Your task to perform on an android device: Check the news Image 0: 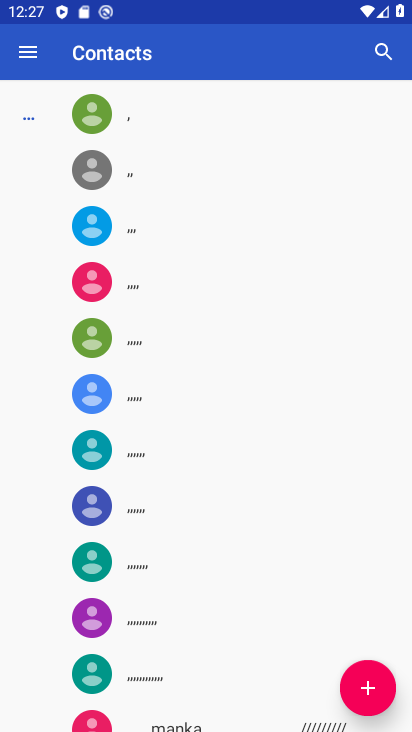
Step 0: press home button
Your task to perform on an android device: Check the news Image 1: 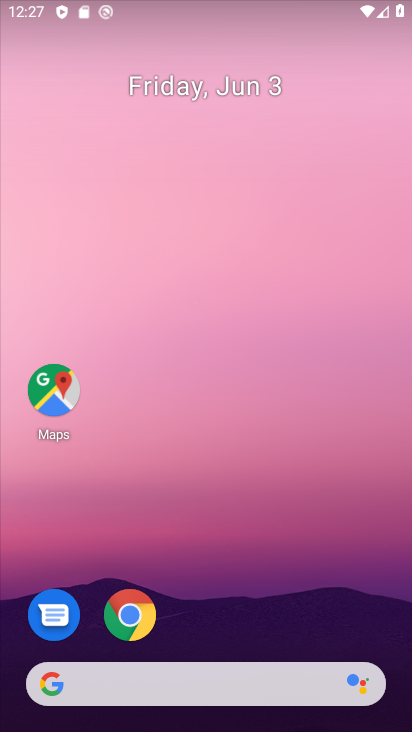
Step 1: click (202, 679)
Your task to perform on an android device: Check the news Image 2: 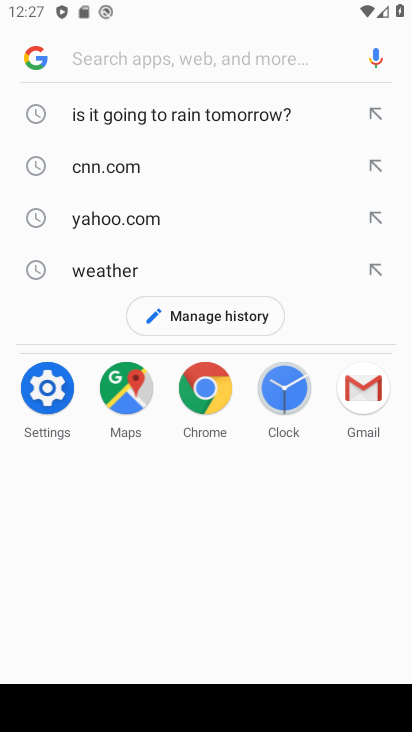
Step 2: type "news"
Your task to perform on an android device: Check the news Image 3: 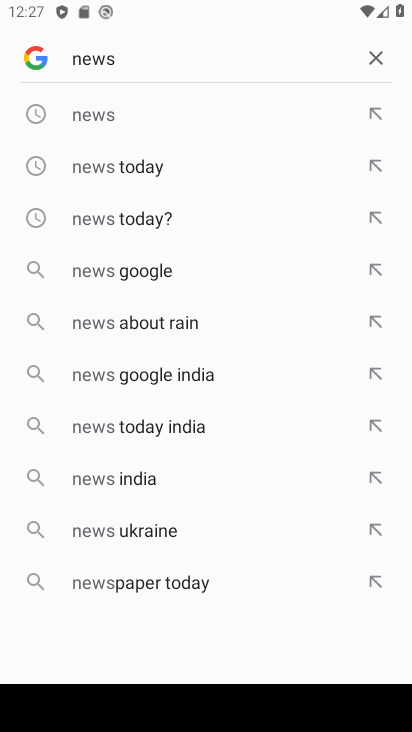
Step 3: click (141, 120)
Your task to perform on an android device: Check the news Image 4: 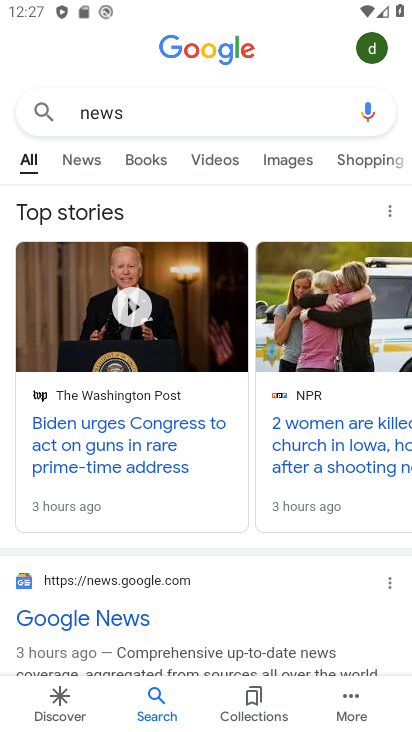
Step 4: task complete